Your task to perform on an android device: check out phone information Image 0: 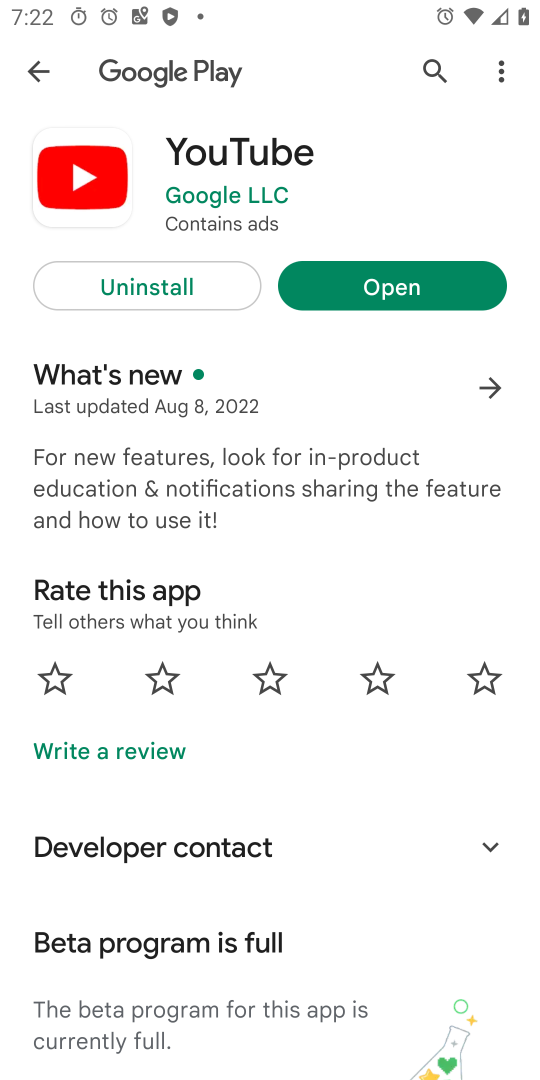
Step 0: press home button
Your task to perform on an android device: check out phone information Image 1: 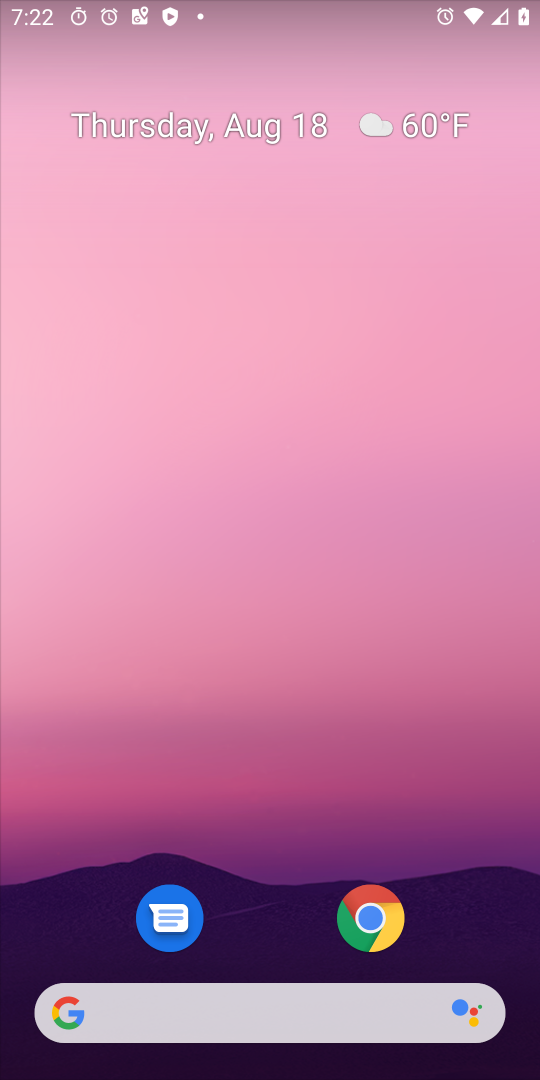
Step 1: drag from (267, 945) to (290, 2)
Your task to perform on an android device: check out phone information Image 2: 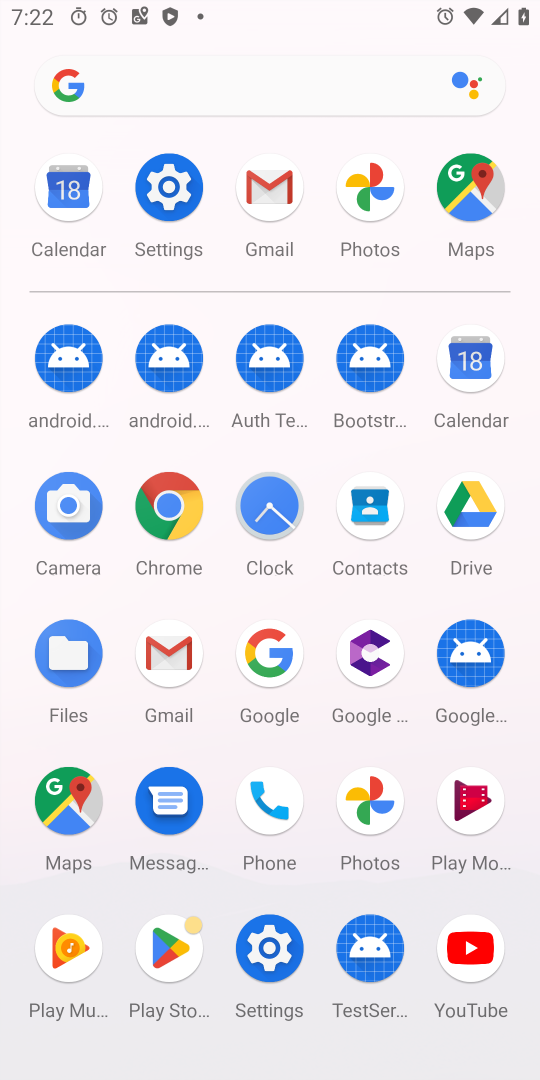
Step 2: click (159, 183)
Your task to perform on an android device: check out phone information Image 3: 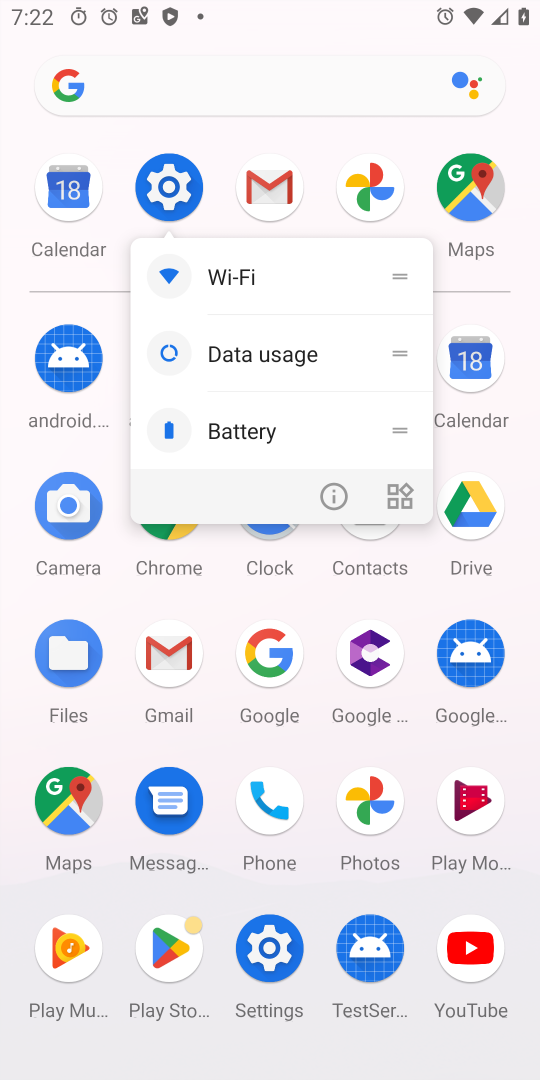
Step 3: click (164, 195)
Your task to perform on an android device: check out phone information Image 4: 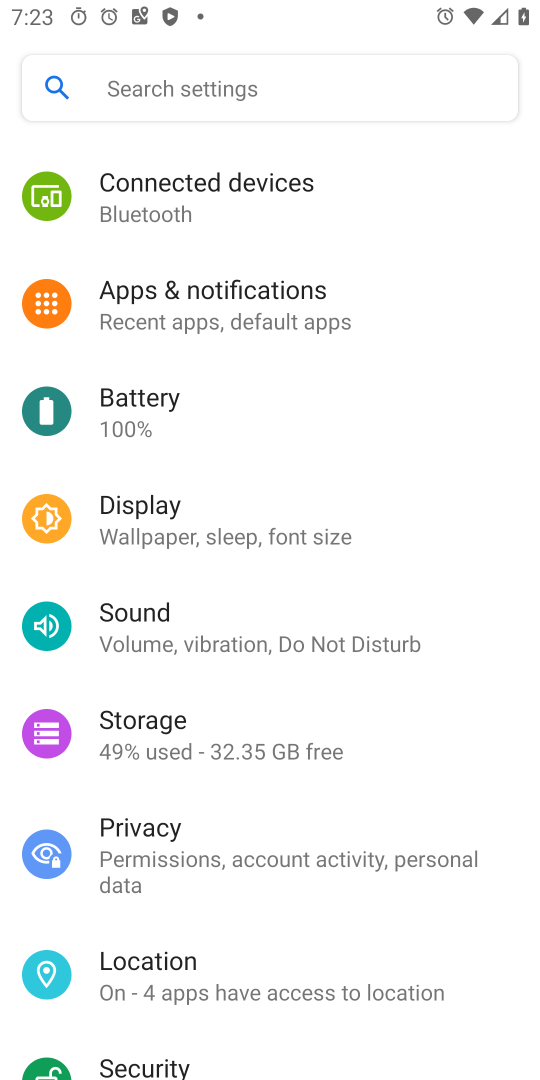
Step 4: drag from (391, 1033) to (417, 75)
Your task to perform on an android device: check out phone information Image 5: 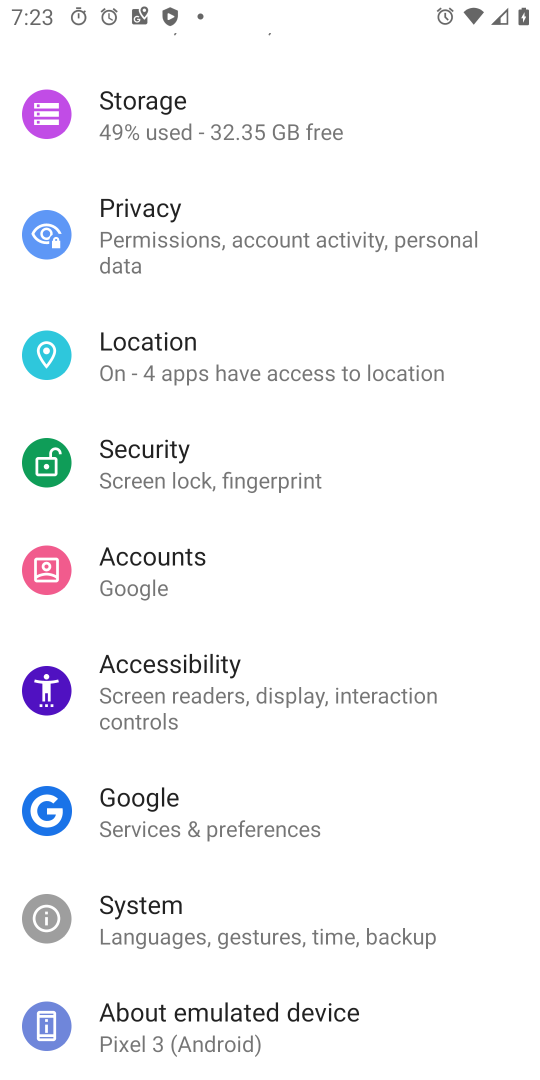
Step 5: click (200, 1016)
Your task to perform on an android device: check out phone information Image 6: 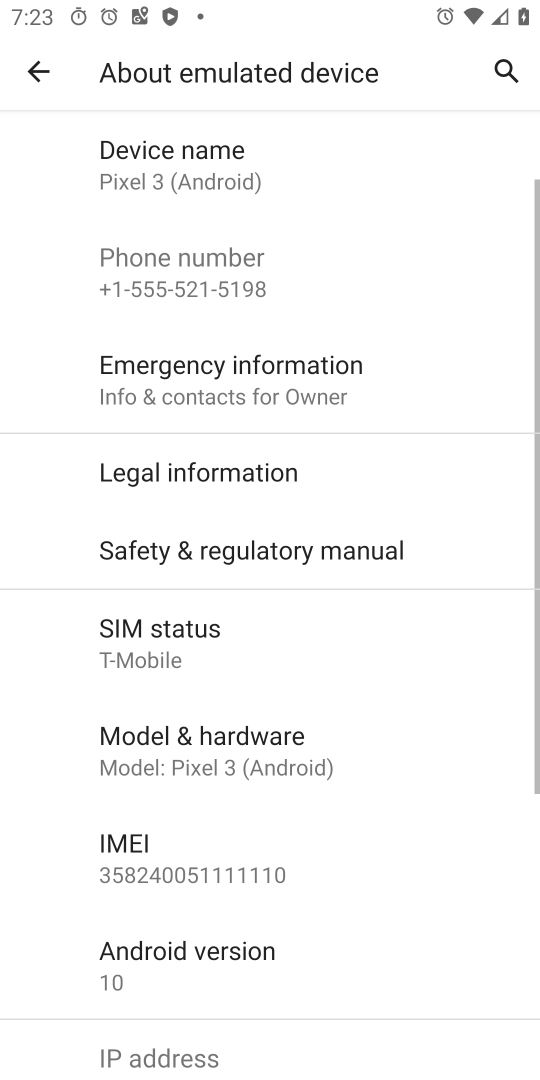
Step 6: task complete